Your task to perform on an android device: change notification settings in the gmail app Image 0: 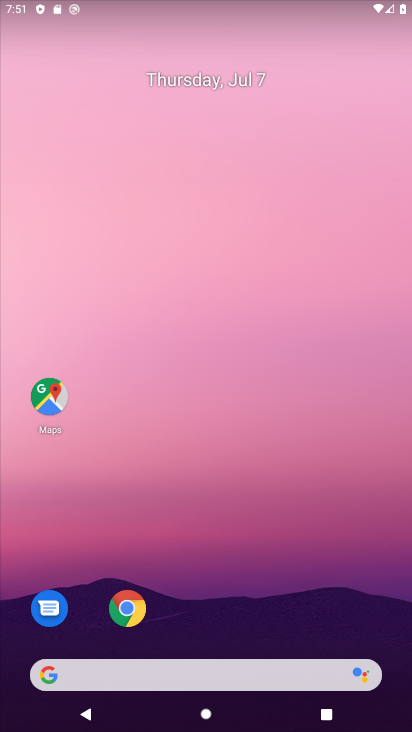
Step 0: drag from (202, 635) to (176, 246)
Your task to perform on an android device: change notification settings in the gmail app Image 1: 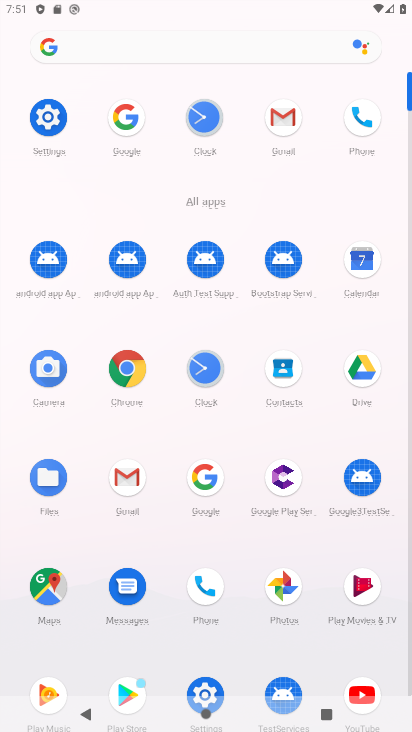
Step 1: click (289, 126)
Your task to perform on an android device: change notification settings in the gmail app Image 2: 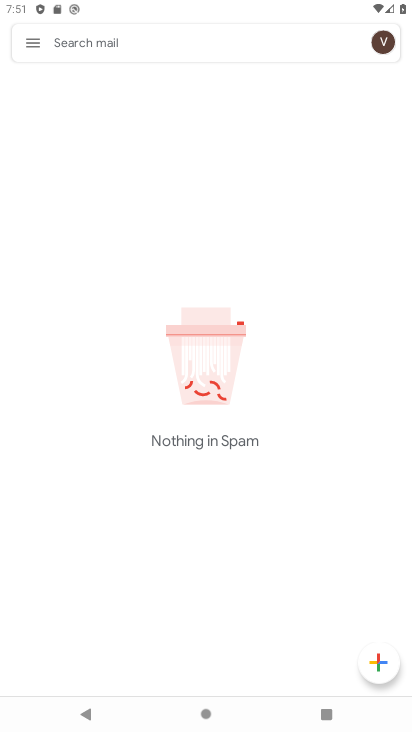
Step 2: click (41, 43)
Your task to perform on an android device: change notification settings in the gmail app Image 3: 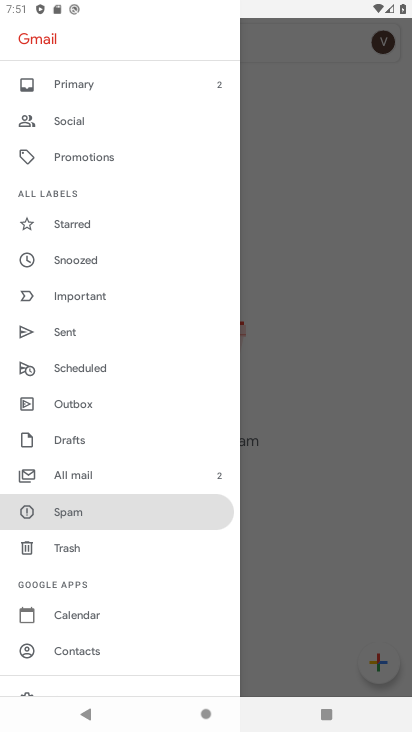
Step 3: drag from (104, 639) to (111, 344)
Your task to perform on an android device: change notification settings in the gmail app Image 4: 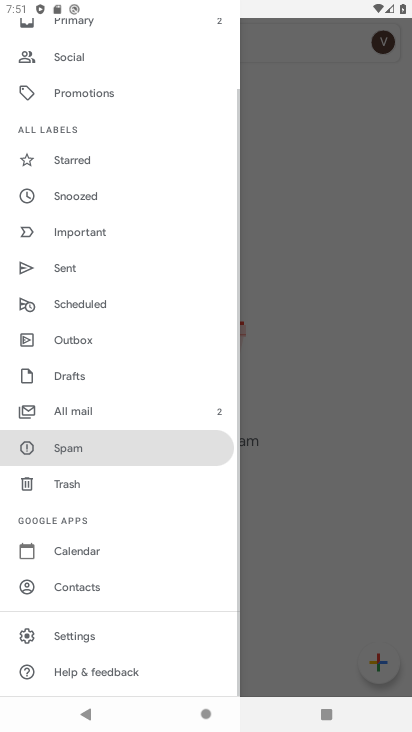
Step 4: click (85, 642)
Your task to perform on an android device: change notification settings in the gmail app Image 5: 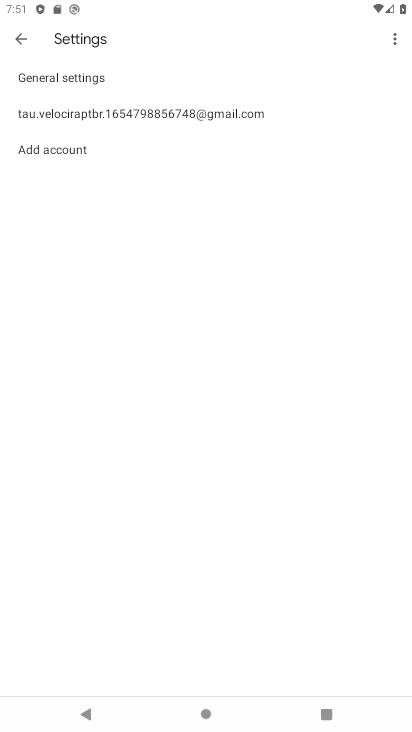
Step 5: click (137, 116)
Your task to perform on an android device: change notification settings in the gmail app Image 6: 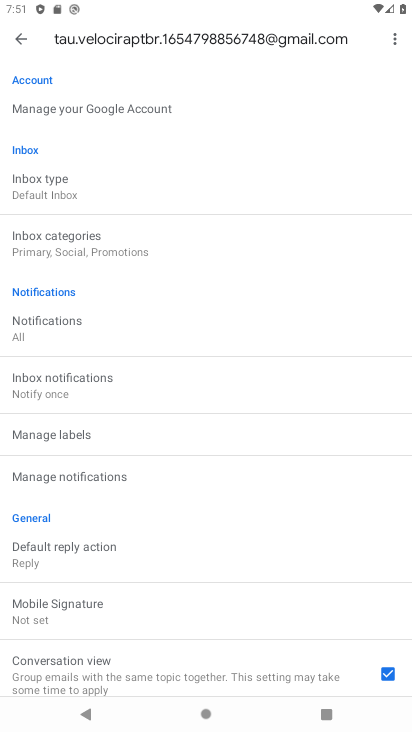
Step 6: click (95, 484)
Your task to perform on an android device: change notification settings in the gmail app Image 7: 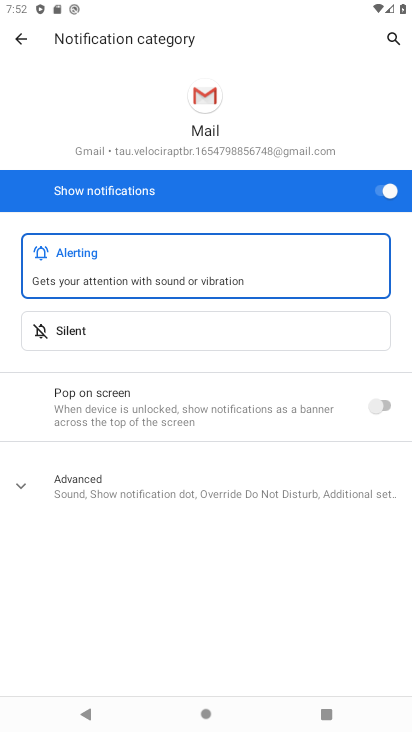
Step 7: click (373, 182)
Your task to perform on an android device: change notification settings in the gmail app Image 8: 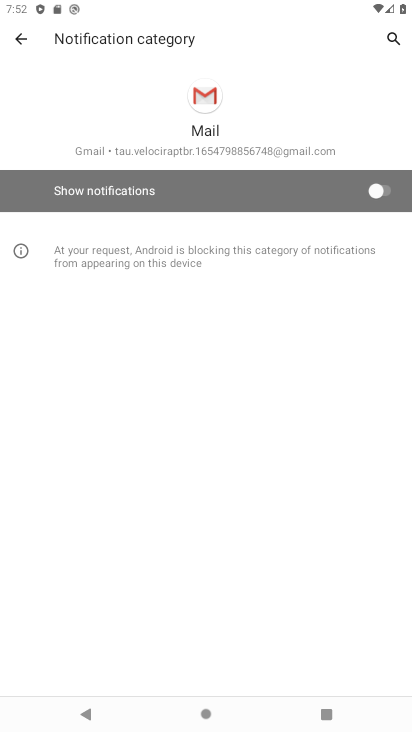
Step 8: task complete